Your task to perform on an android device: Open the phone app and click the voicemail tab. Image 0: 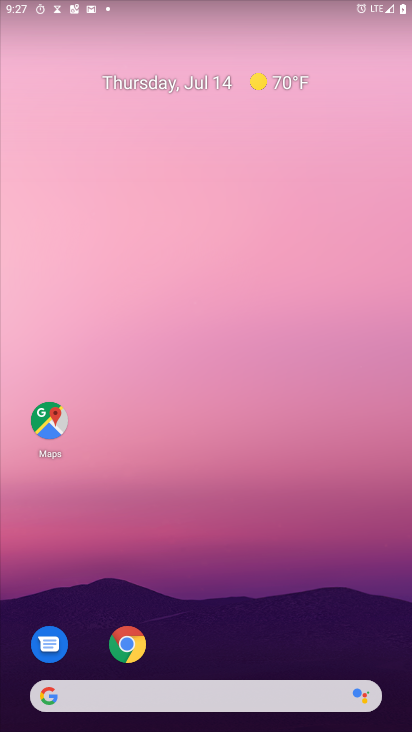
Step 0: press home button
Your task to perform on an android device: Open the phone app and click the voicemail tab. Image 1: 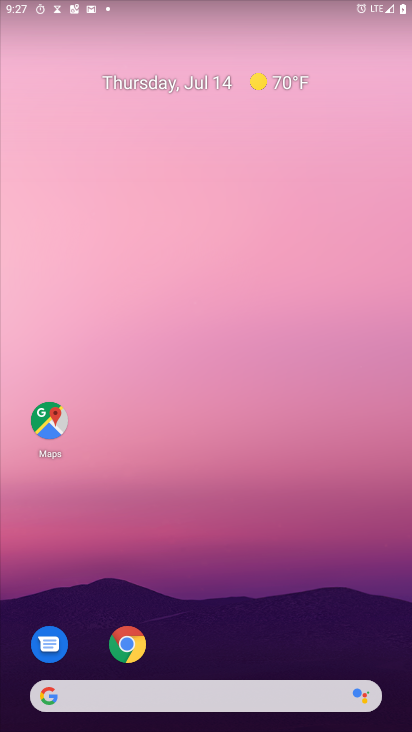
Step 1: drag from (205, 688) to (334, 48)
Your task to perform on an android device: Open the phone app and click the voicemail tab. Image 2: 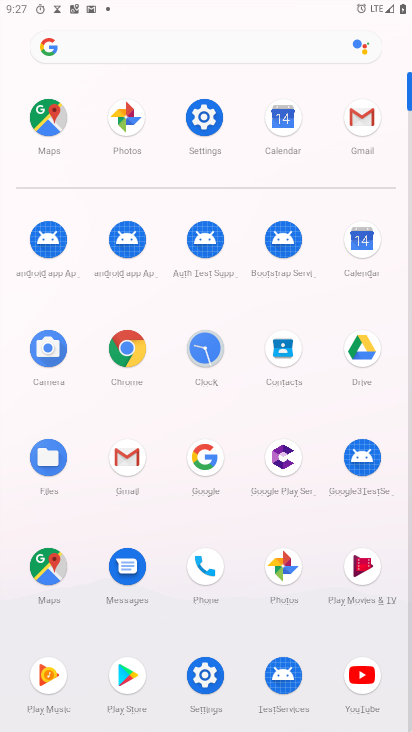
Step 2: click (202, 570)
Your task to perform on an android device: Open the phone app and click the voicemail tab. Image 3: 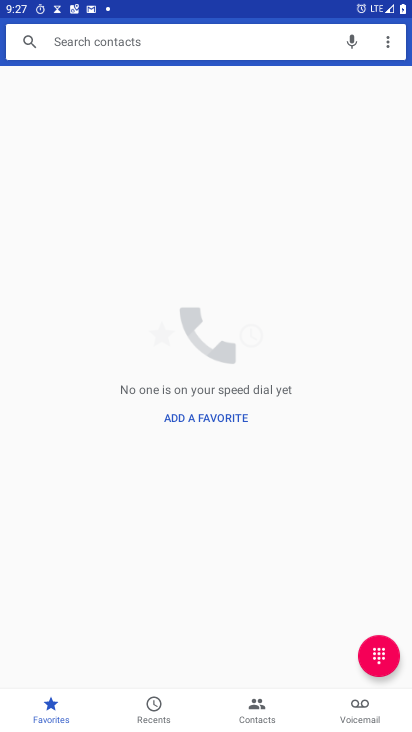
Step 3: click (351, 717)
Your task to perform on an android device: Open the phone app and click the voicemail tab. Image 4: 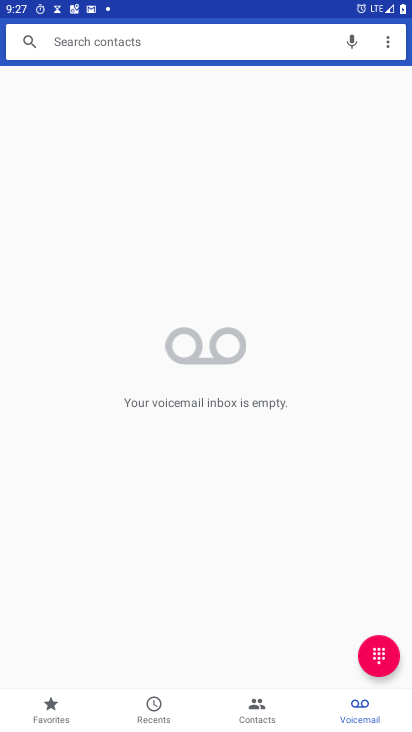
Step 4: task complete